Your task to perform on an android device: Open ESPN.com Image 0: 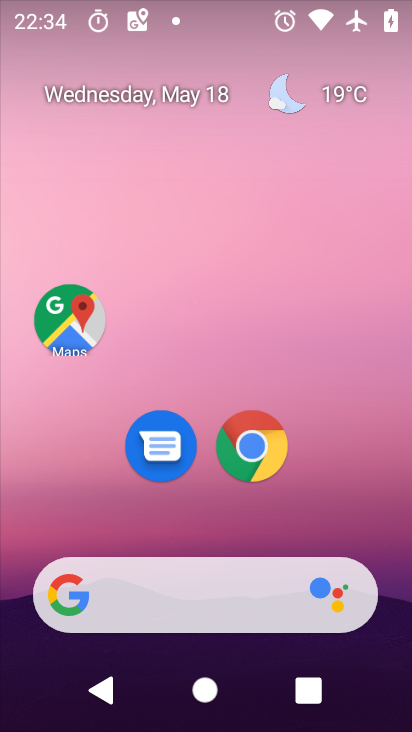
Step 0: press home button
Your task to perform on an android device: Open ESPN.com Image 1: 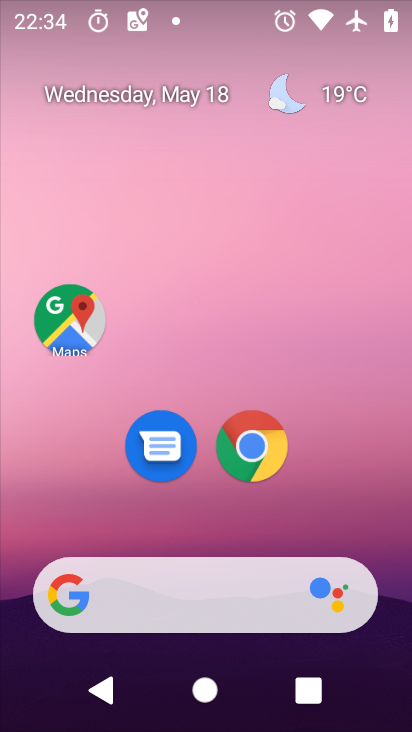
Step 1: click (267, 453)
Your task to perform on an android device: Open ESPN.com Image 2: 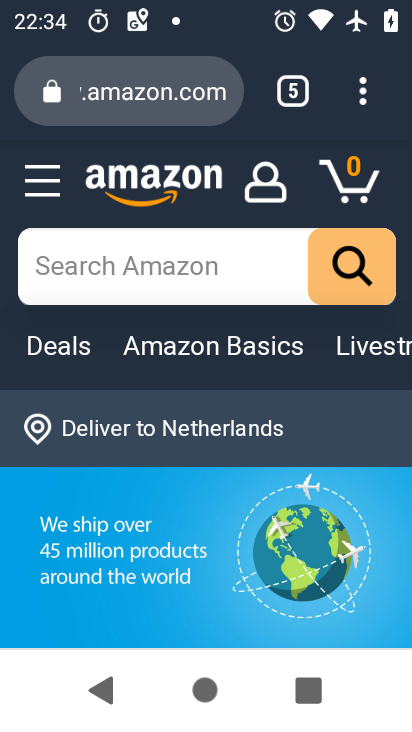
Step 2: drag from (368, 103) to (210, 180)
Your task to perform on an android device: Open ESPN.com Image 3: 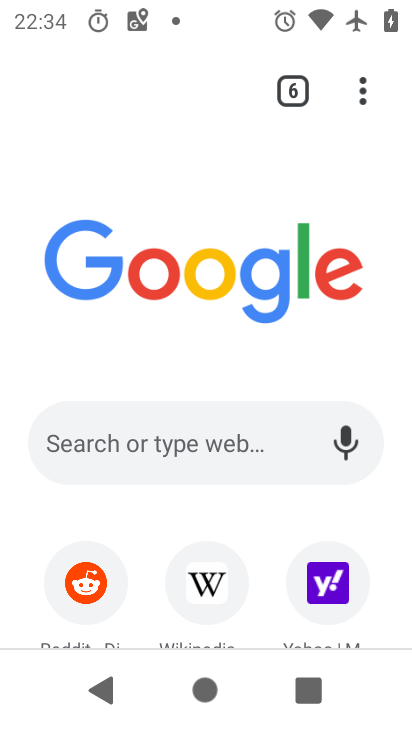
Step 3: drag from (169, 548) to (314, 182)
Your task to perform on an android device: Open ESPN.com Image 4: 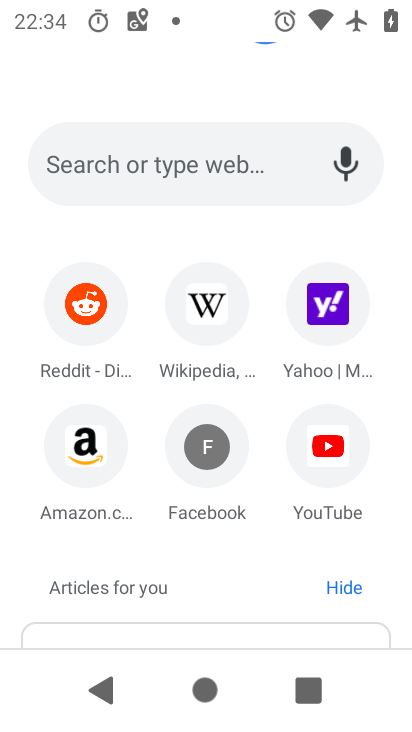
Step 4: click (198, 172)
Your task to perform on an android device: Open ESPN.com Image 5: 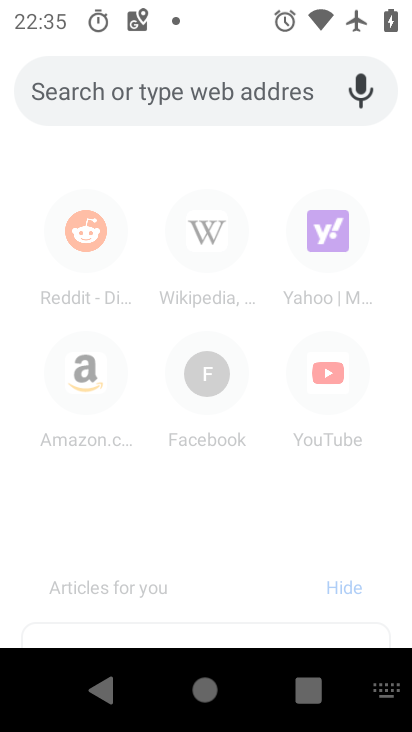
Step 5: type "espn.com"
Your task to perform on an android device: Open ESPN.com Image 6: 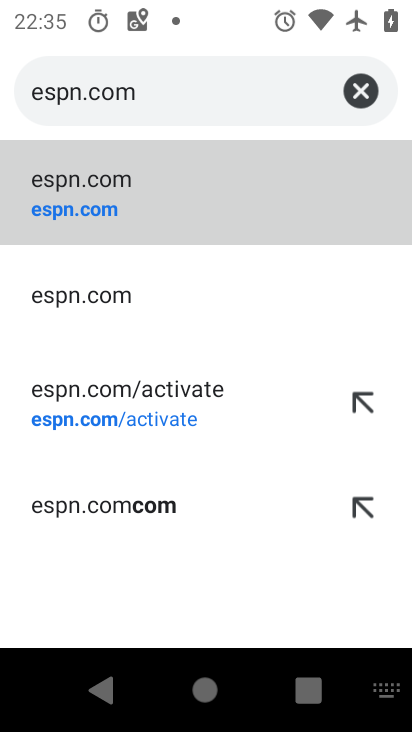
Step 6: click (93, 203)
Your task to perform on an android device: Open ESPN.com Image 7: 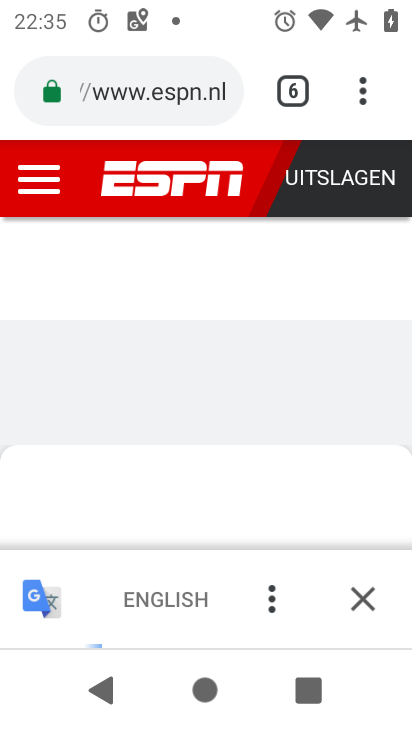
Step 7: task complete